Your task to perform on an android device: change the upload size in google photos Image 0: 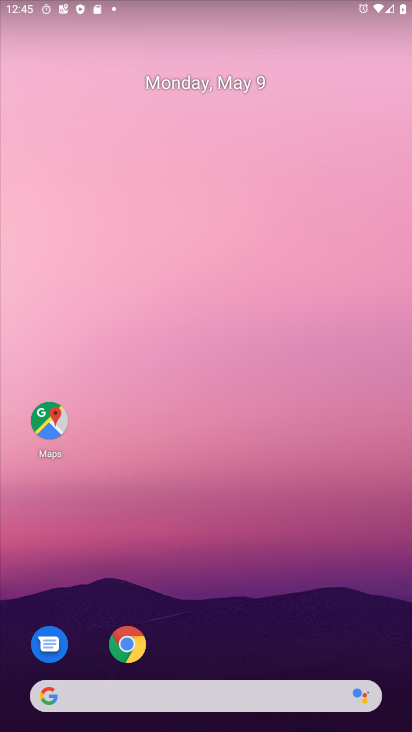
Step 0: drag from (243, 674) to (189, 171)
Your task to perform on an android device: change the upload size in google photos Image 1: 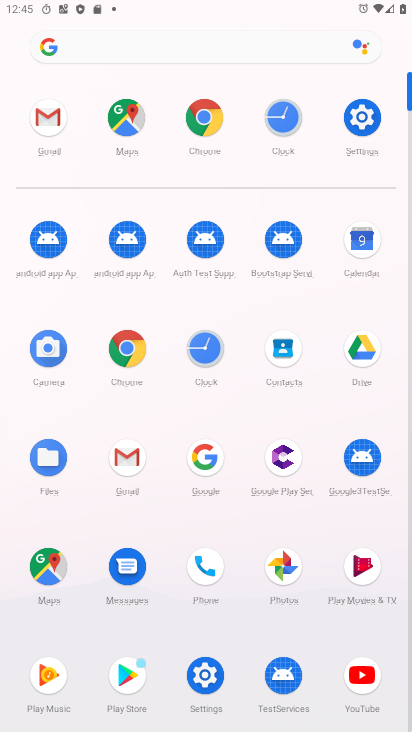
Step 1: click (280, 556)
Your task to perform on an android device: change the upload size in google photos Image 2: 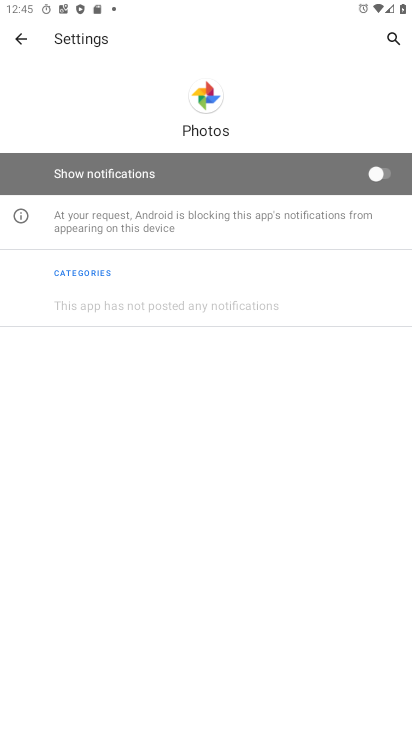
Step 2: click (19, 42)
Your task to perform on an android device: change the upload size in google photos Image 3: 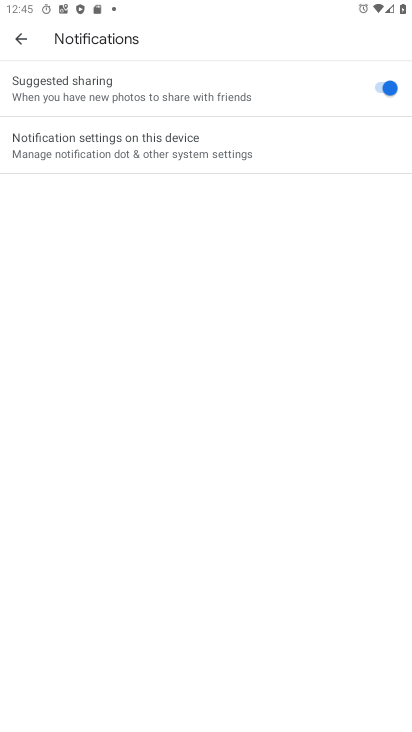
Step 3: click (21, 39)
Your task to perform on an android device: change the upload size in google photos Image 4: 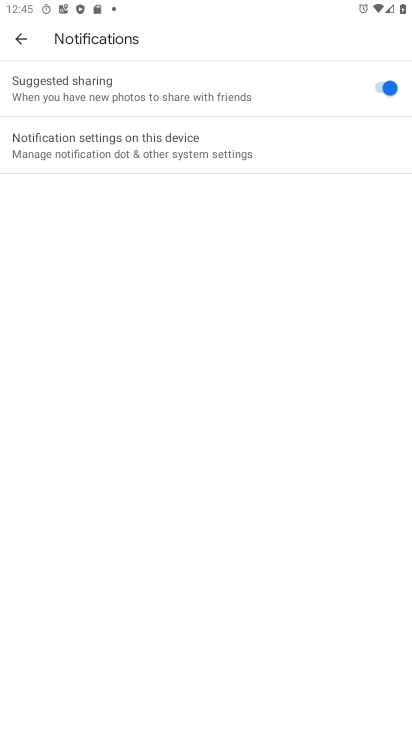
Step 4: click (21, 39)
Your task to perform on an android device: change the upload size in google photos Image 5: 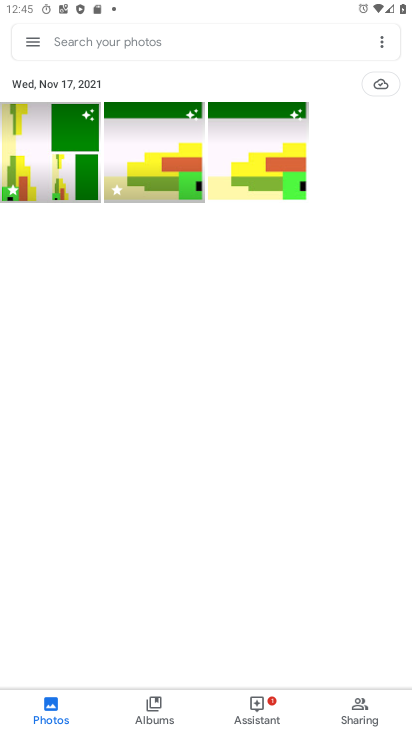
Step 5: click (34, 39)
Your task to perform on an android device: change the upload size in google photos Image 6: 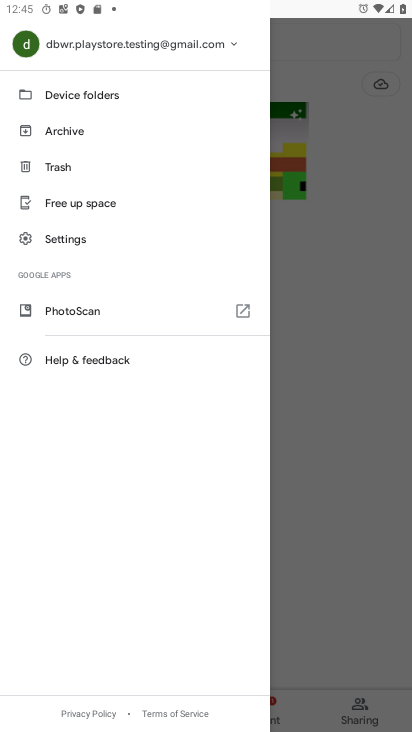
Step 6: click (67, 239)
Your task to perform on an android device: change the upload size in google photos Image 7: 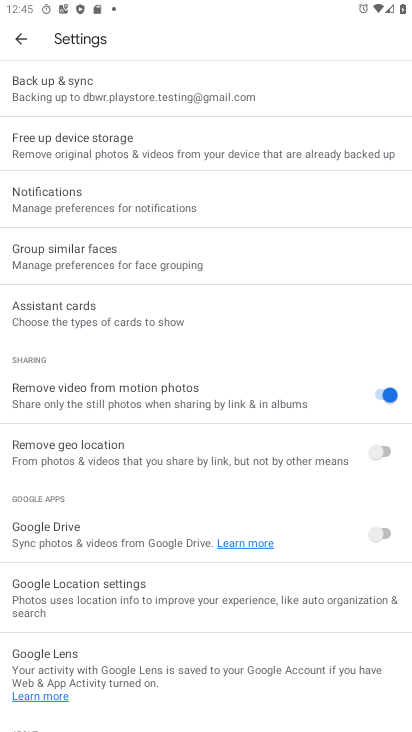
Step 7: click (84, 89)
Your task to perform on an android device: change the upload size in google photos Image 8: 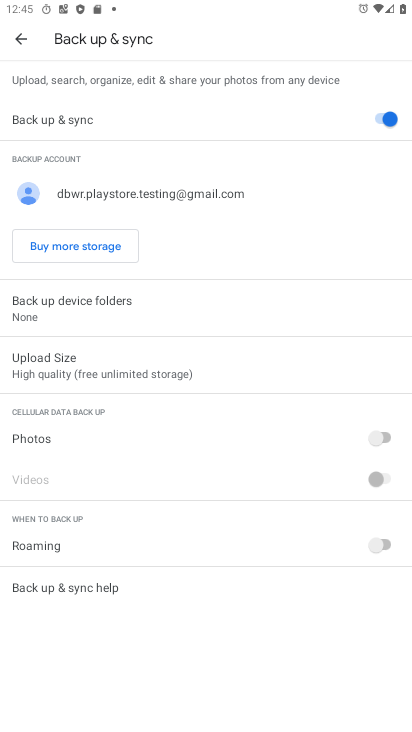
Step 8: click (47, 369)
Your task to perform on an android device: change the upload size in google photos Image 9: 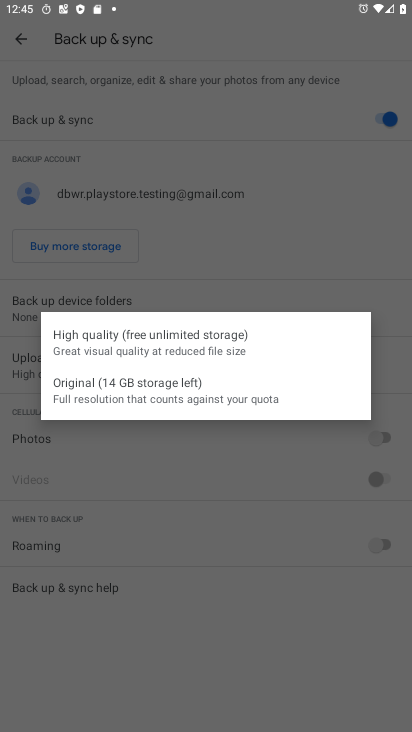
Step 9: click (140, 388)
Your task to perform on an android device: change the upload size in google photos Image 10: 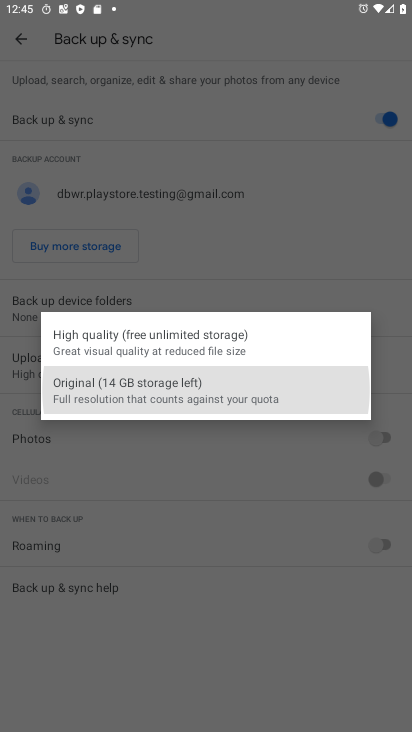
Step 10: click (140, 388)
Your task to perform on an android device: change the upload size in google photos Image 11: 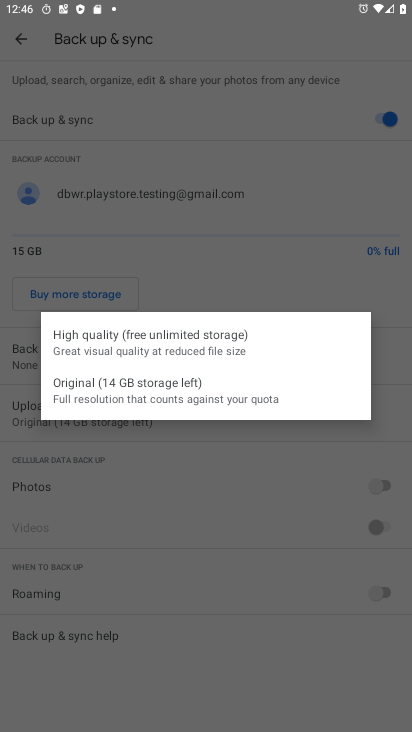
Step 11: click (169, 345)
Your task to perform on an android device: change the upload size in google photos Image 12: 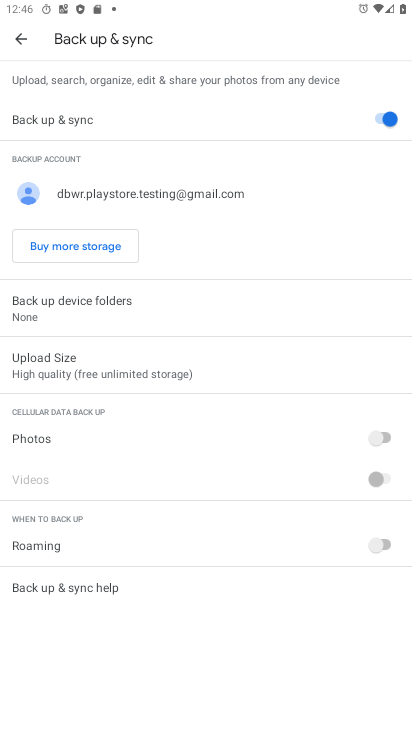
Step 12: click (156, 346)
Your task to perform on an android device: change the upload size in google photos Image 13: 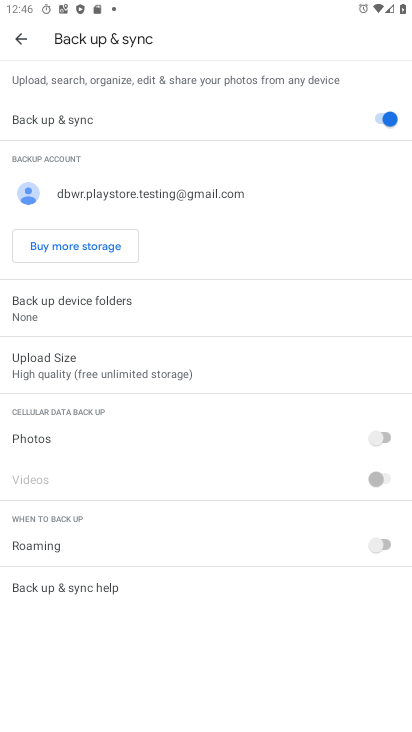
Step 13: click (159, 342)
Your task to perform on an android device: change the upload size in google photos Image 14: 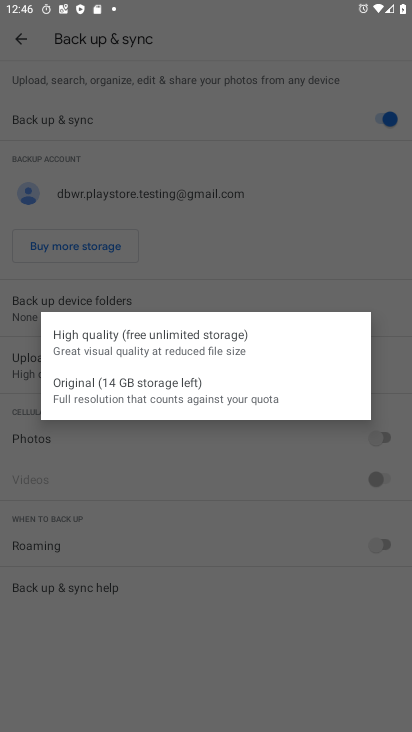
Step 14: click (108, 342)
Your task to perform on an android device: change the upload size in google photos Image 15: 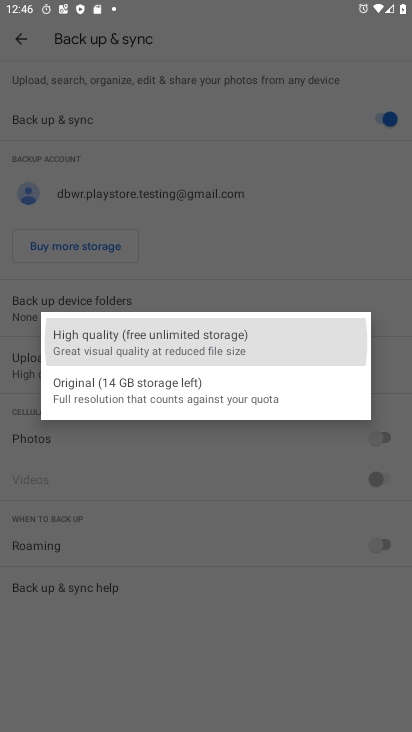
Step 15: click (97, 340)
Your task to perform on an android device: change the upload size in google photos Image 16: 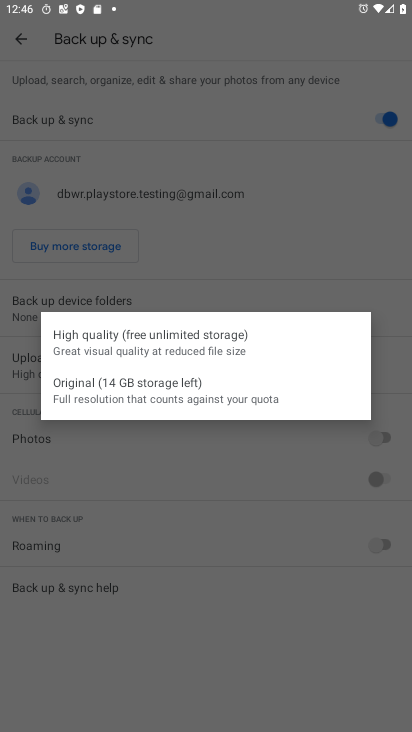
Step 16: task complete